Your task to perform on an android device: Search for seafood restaurants on Google Maps Image 0: 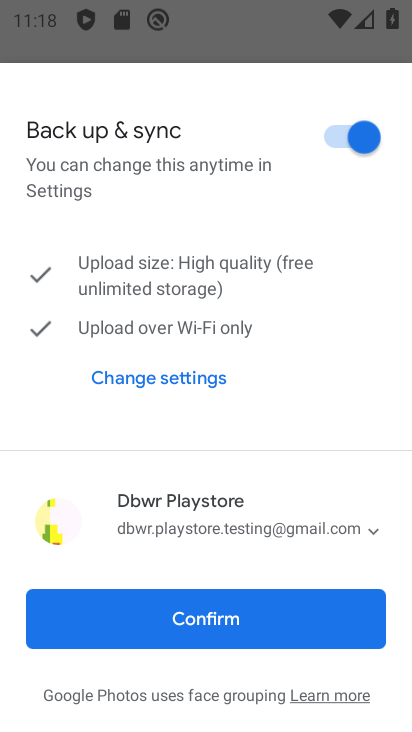
Step 0: press home button
Your task to perform on an android device: Search for seafood restaurants on Google Maps Image 1: 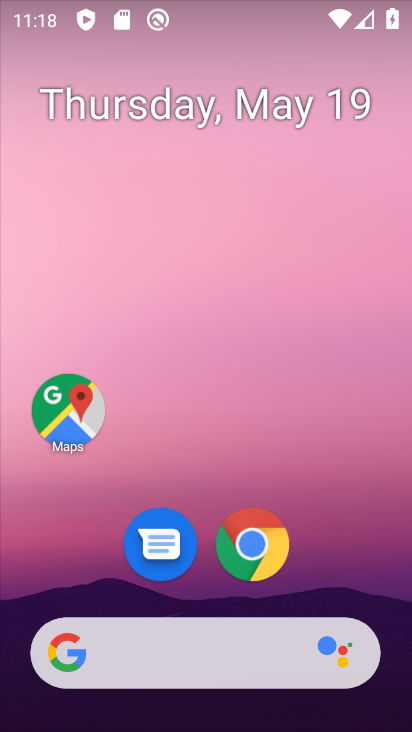
Step 1: drag from (344, 566) to (336, 94)
Your task to perform on an android device: Search for seafood restaurants on Google Maps Image 2: 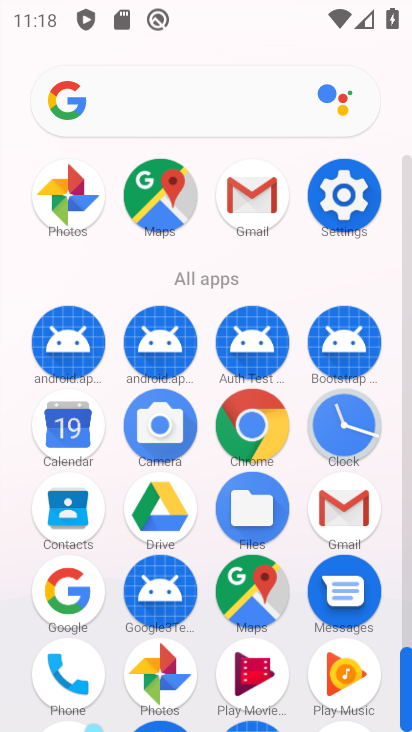
Step 2: click (90, 580)
Your task to perform on an android device: Search for seafood restaurants on Google Maps Image 3: 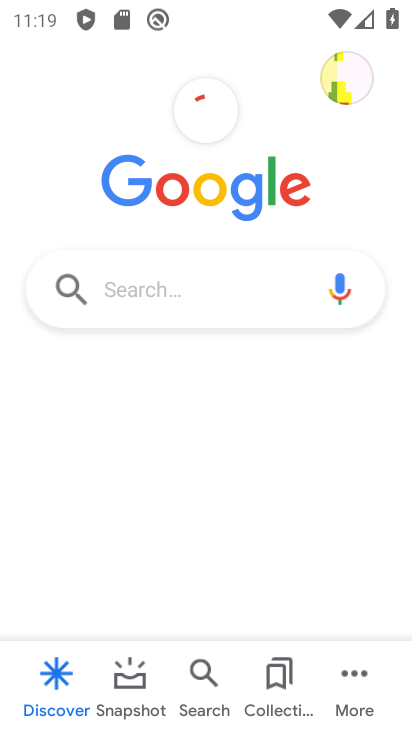
Step 3: click (233, 297)
Your task to perform on an android device: Search for seafood restaurants on Google Maps Image 4: 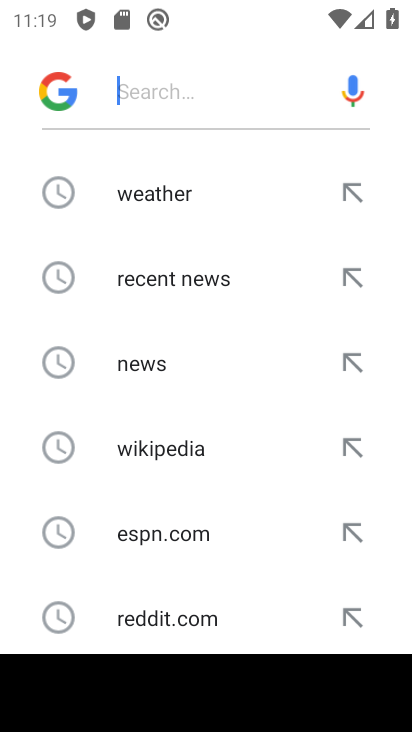
Step 4: drag from (161, 459) to (174, 111)
Your task to perform on an android device: Search for seafood restaurants on Google Maps Image 5: 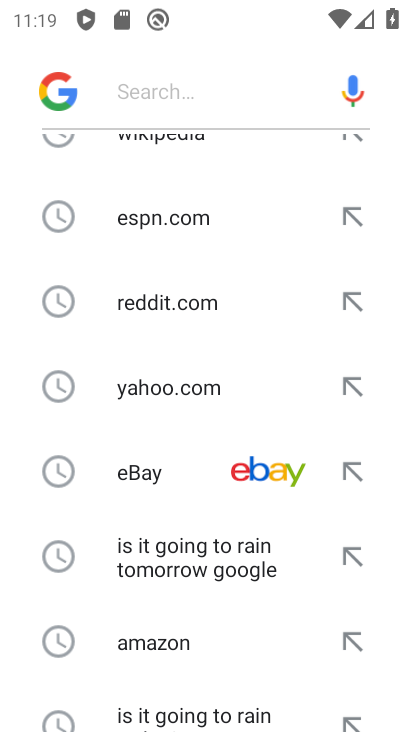
Step 5: drag from (233, 552) to (197, 129)
Your task to perform on an android device: Search for seafood restaurants on Google Maps Image 6: 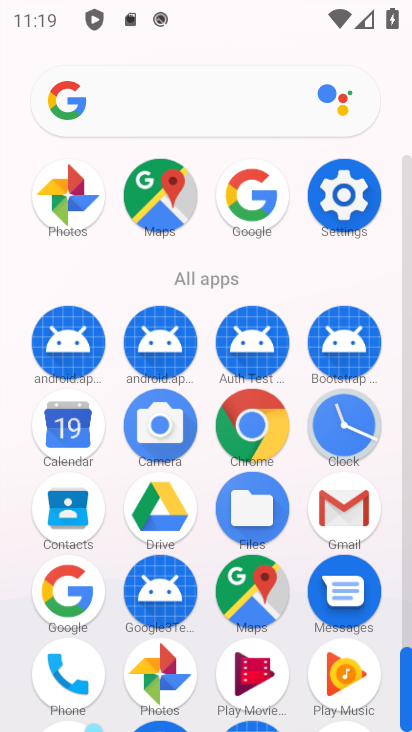
Step 6: click (126, 178)
Your task to perform on an android device: Search for seafood restaurants on Google Maps Image 7: 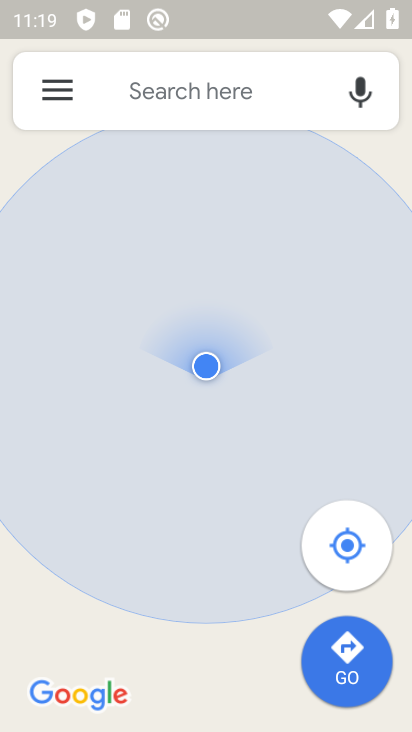
Step 7: click (204, 105)
Your task to perform on an android device: Search for seafood restaurants on Google Maps Image 8: 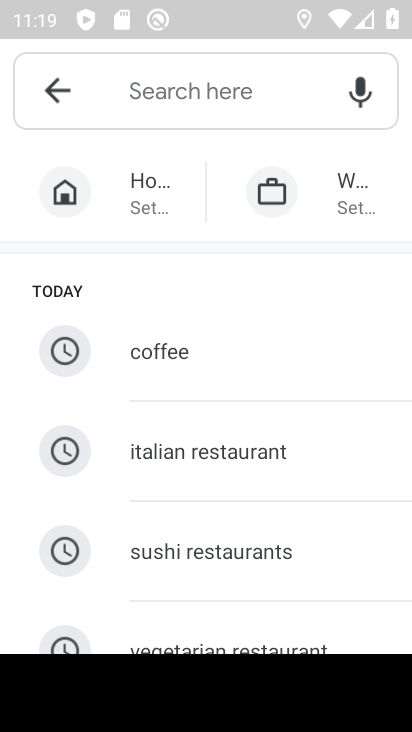
Step 8: type "seafood returents"
Your task to perform on an android device: Search for seafood restaurants on Google Maps Image 9: 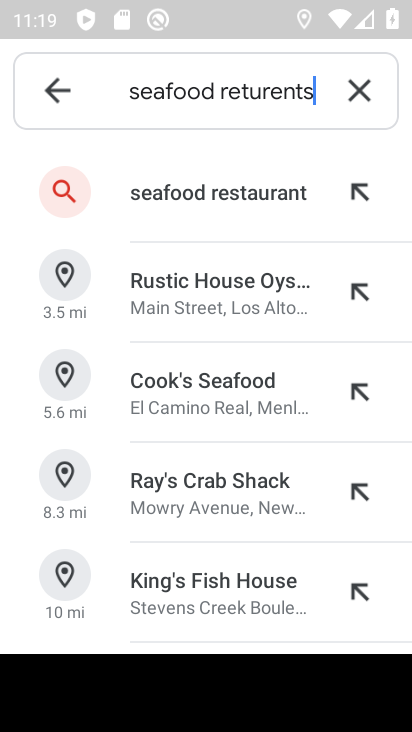
Step 9: click (212, 187)
Your task to perform on an android device: Search for seafood restaurants on Google Maps Image 10: 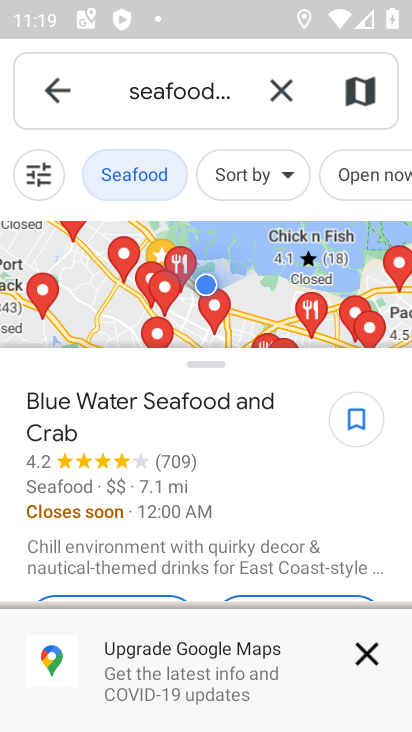
Step 10: task complete